Your task to perform on an android device: toggle notification dots Image 0: 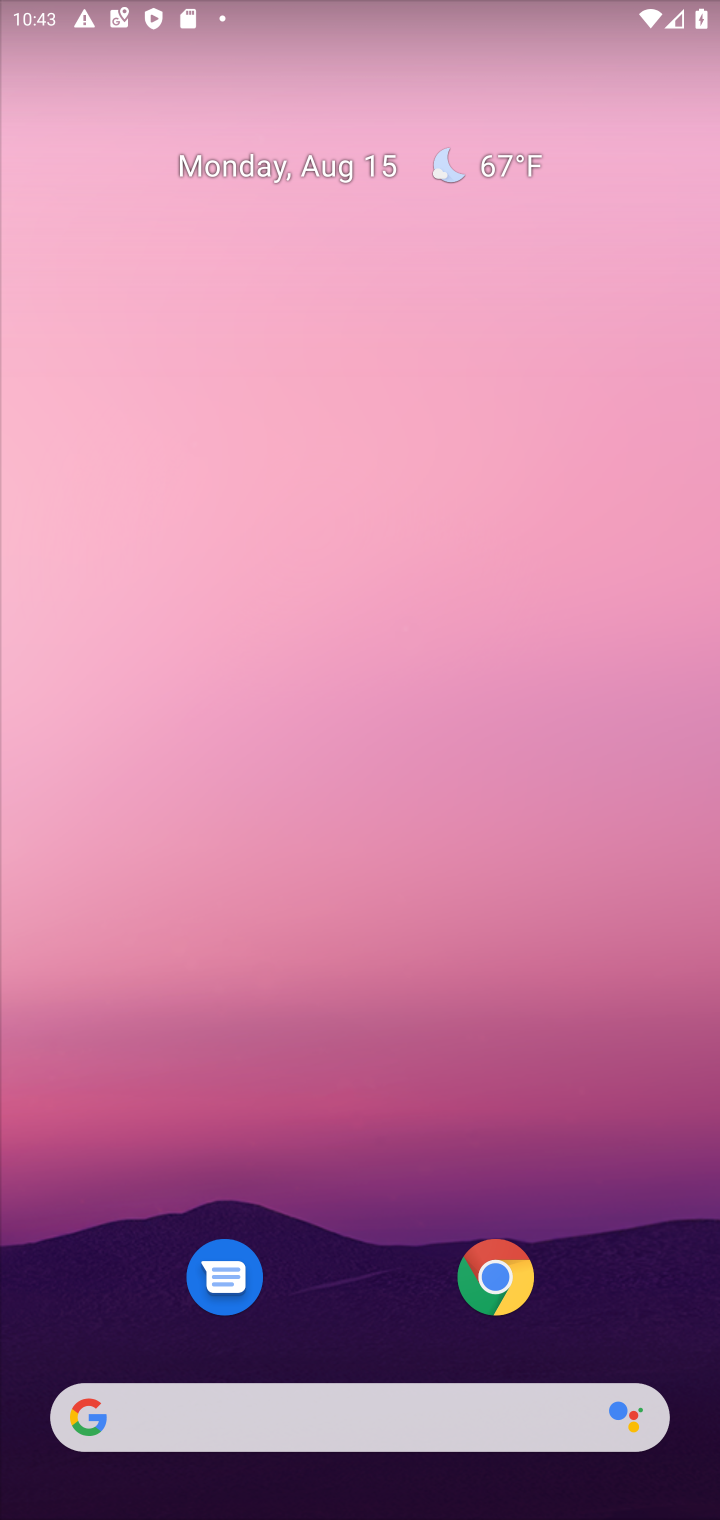
Step 0: drag from (376, 569) to (401, 251)
Your task to perform on an android device: toggle notification dots Image 1: 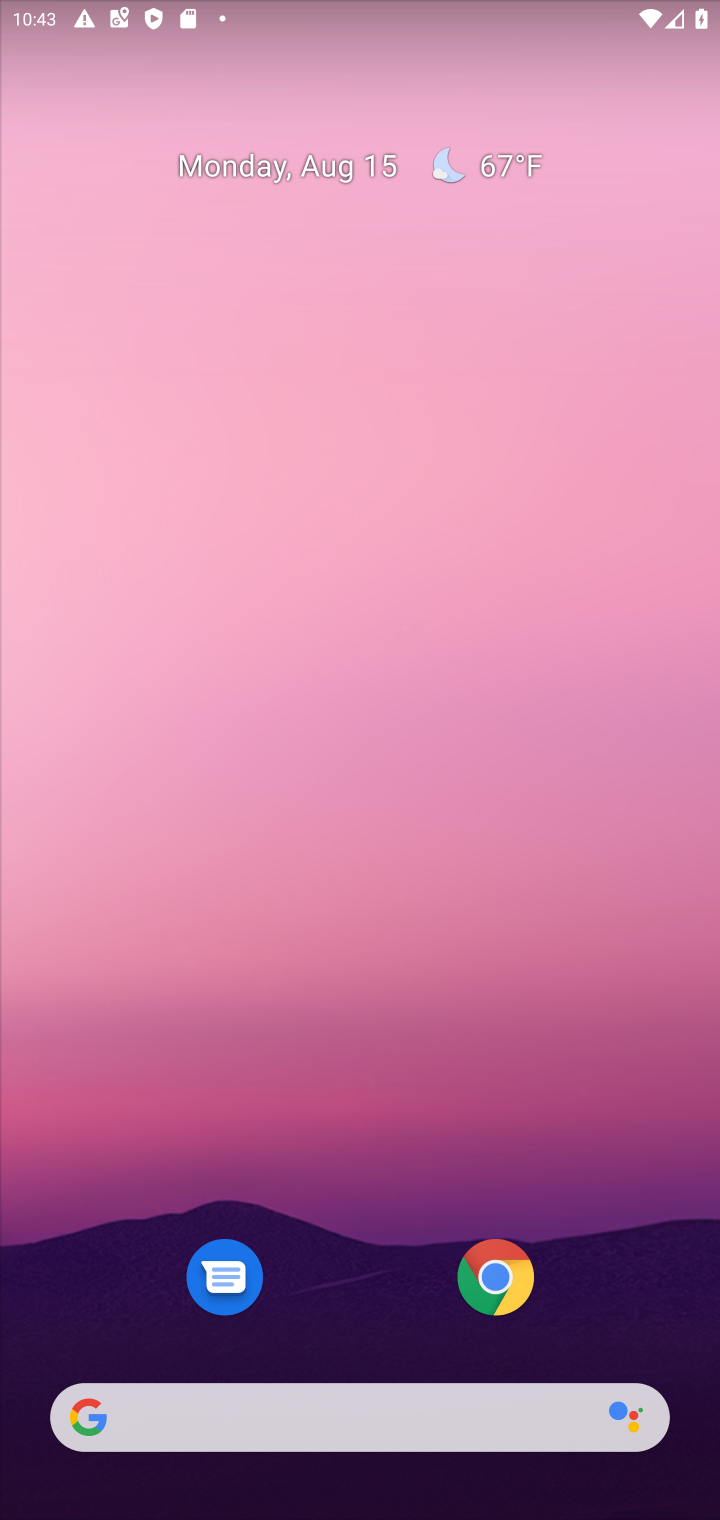
Step 1: click (285, 247)
Your task to perform on an android device: toggle notification dots Image 2: 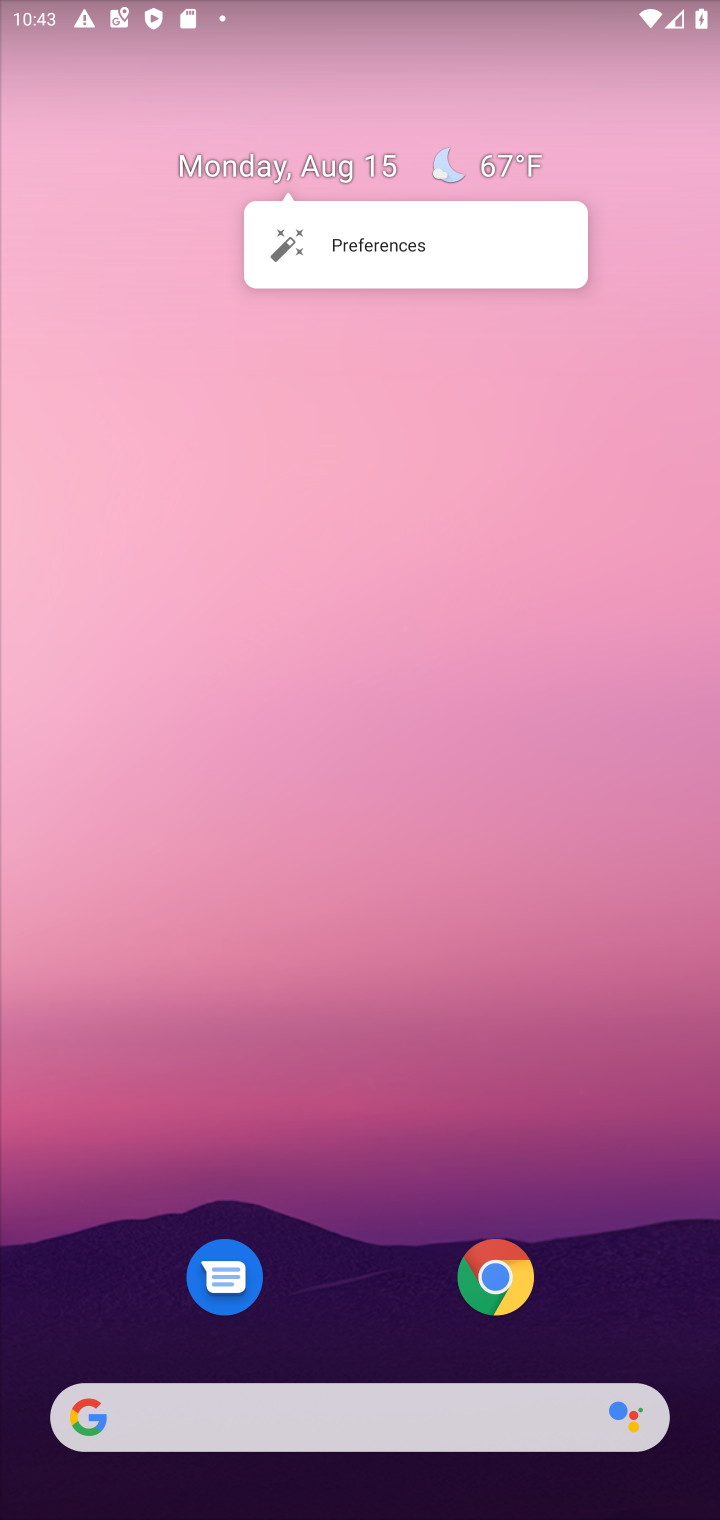
Step 2: drag from (361, 1397) to (377, 653)
Your task to perform on an android device: toggle notification dots Image 3: 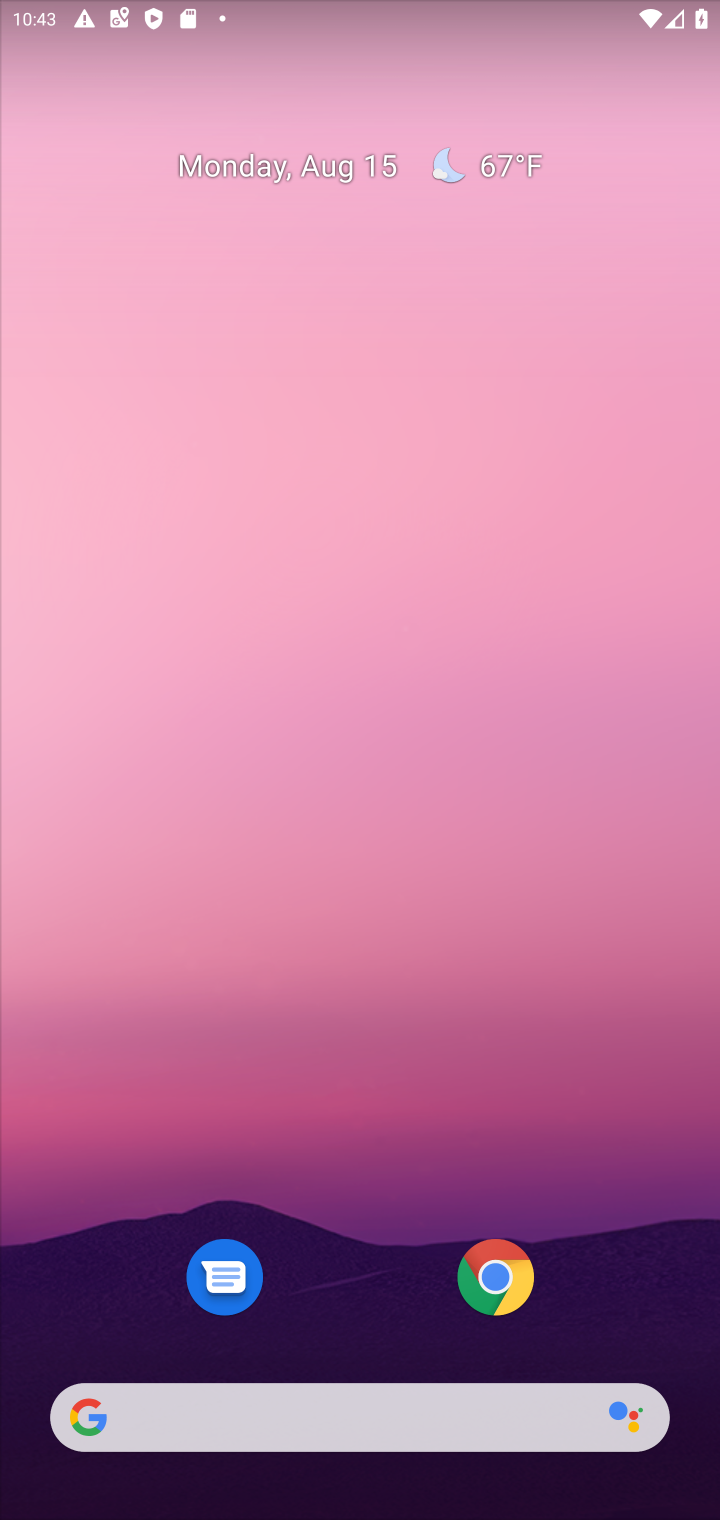
Step 3: drag from (400, 1354) to (449, 549)
Your task to perform on an android device: toggle notification dots Image 4: 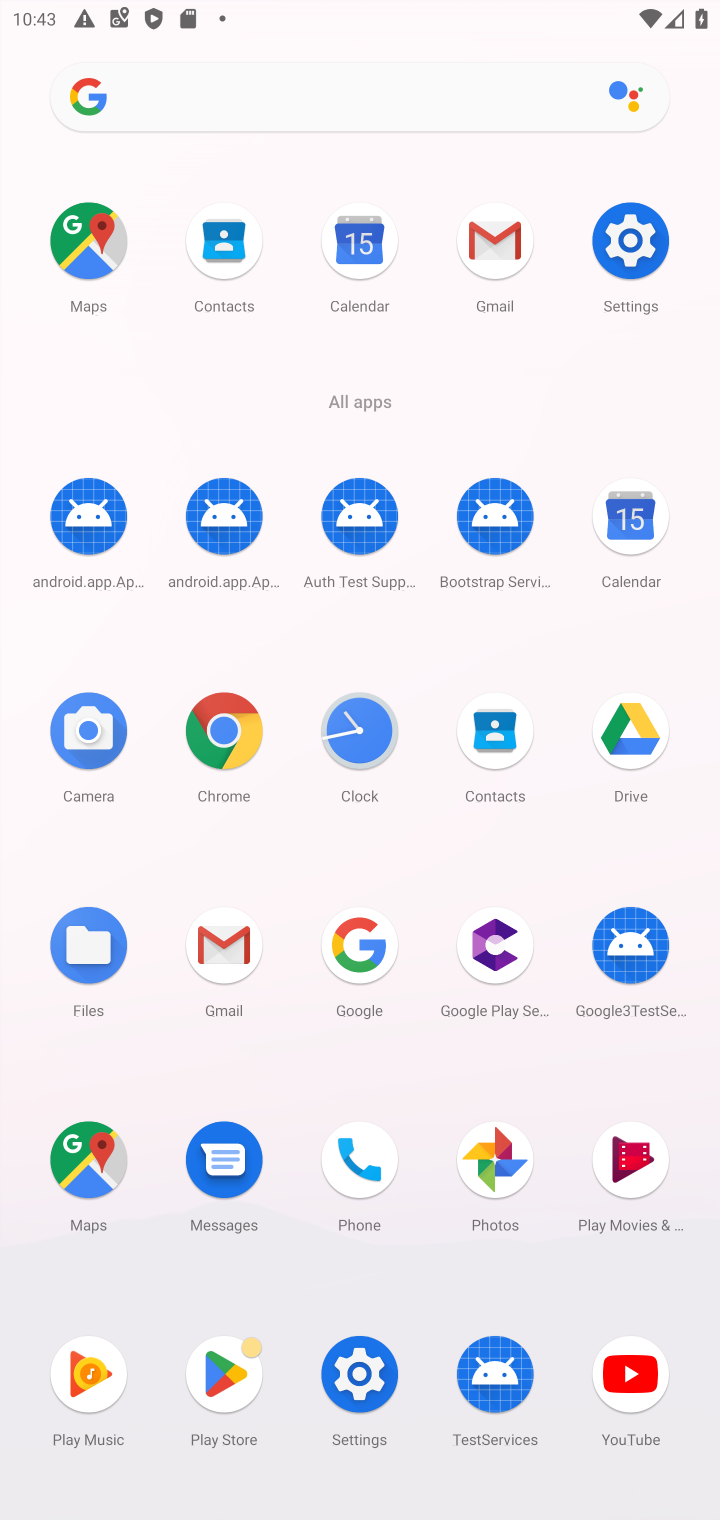
Step 4: click (343, 1368)
Your task to perform on an android device: toggle notification dots Image 5: 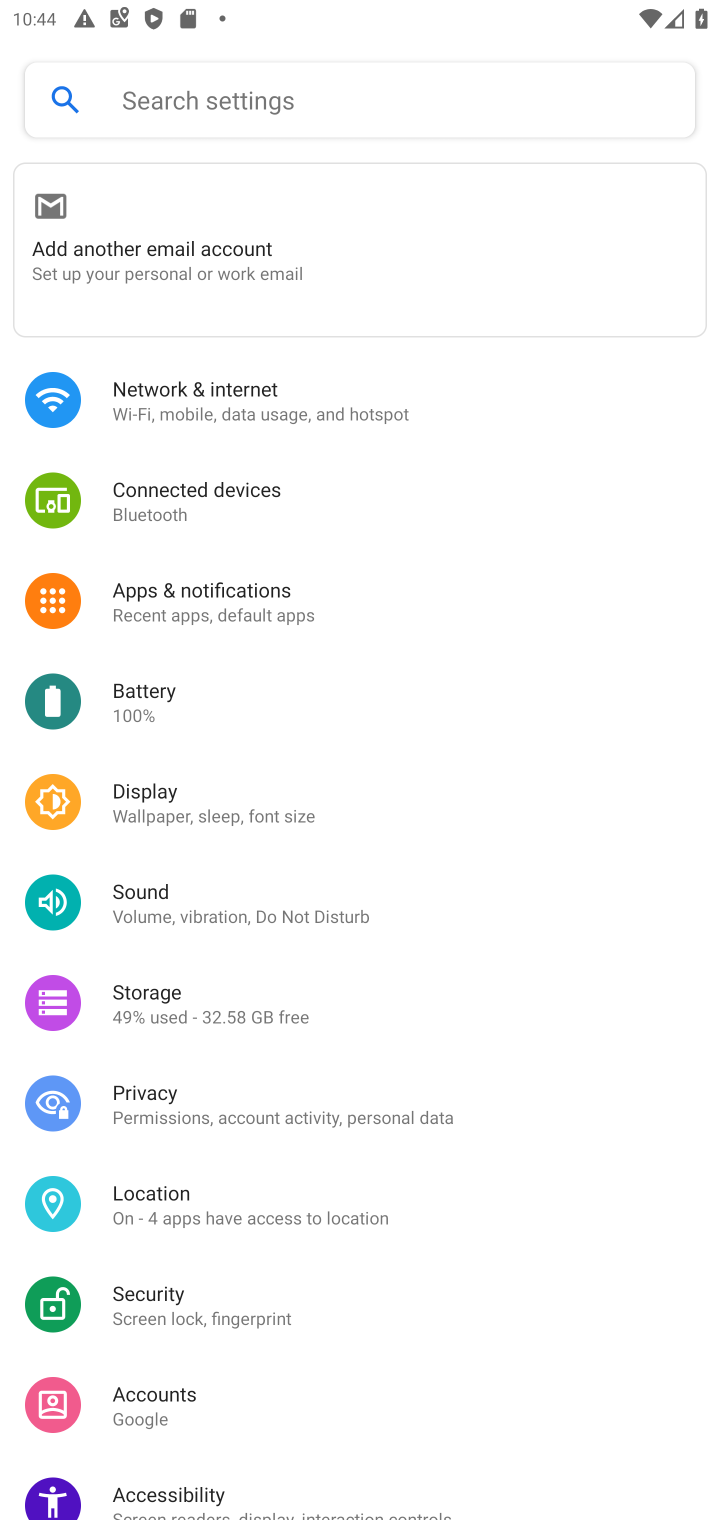
Step 5: click (140, 604)
Your task to perform on an android device: toggle notification dots Image 6: 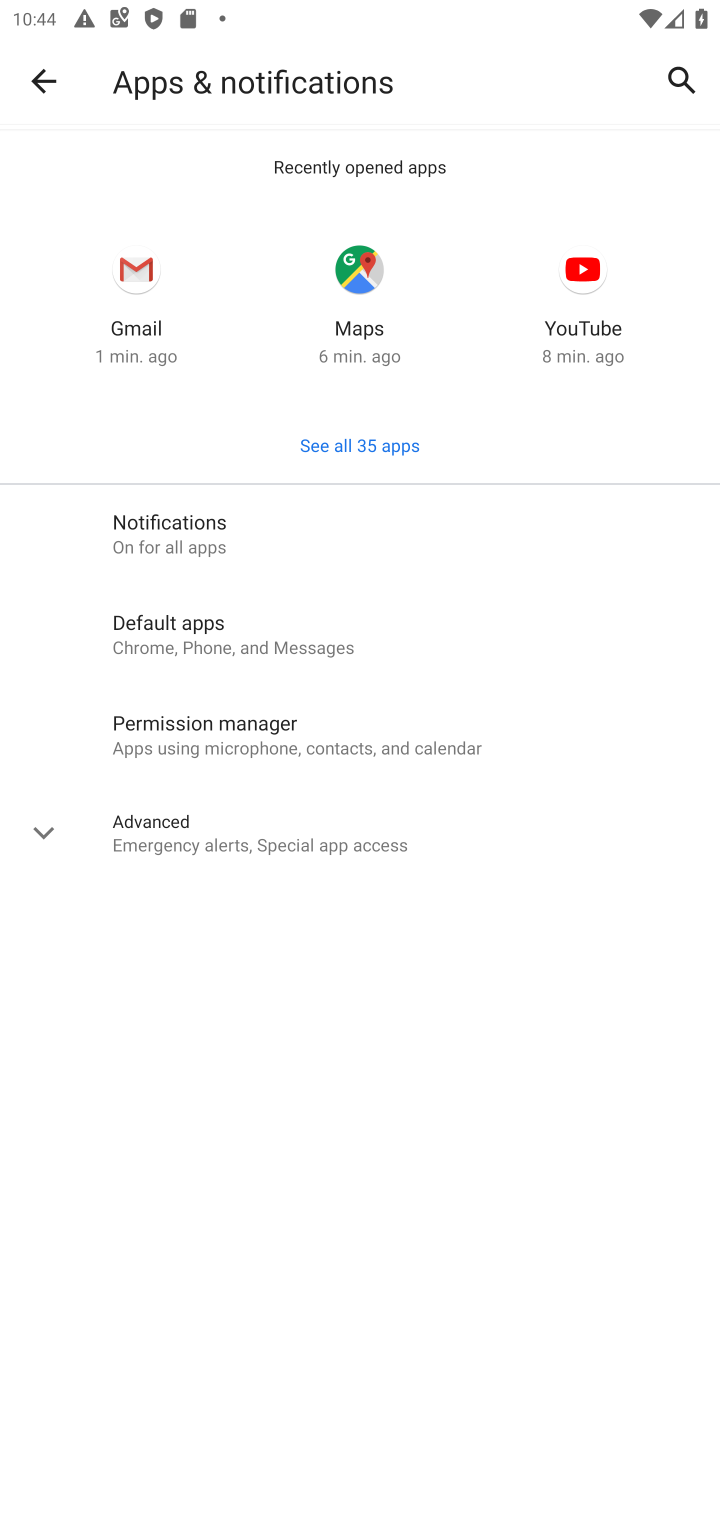
Step 6: click (206, 825)
Your task to perform on an android device: toggle notification dots Image 7: 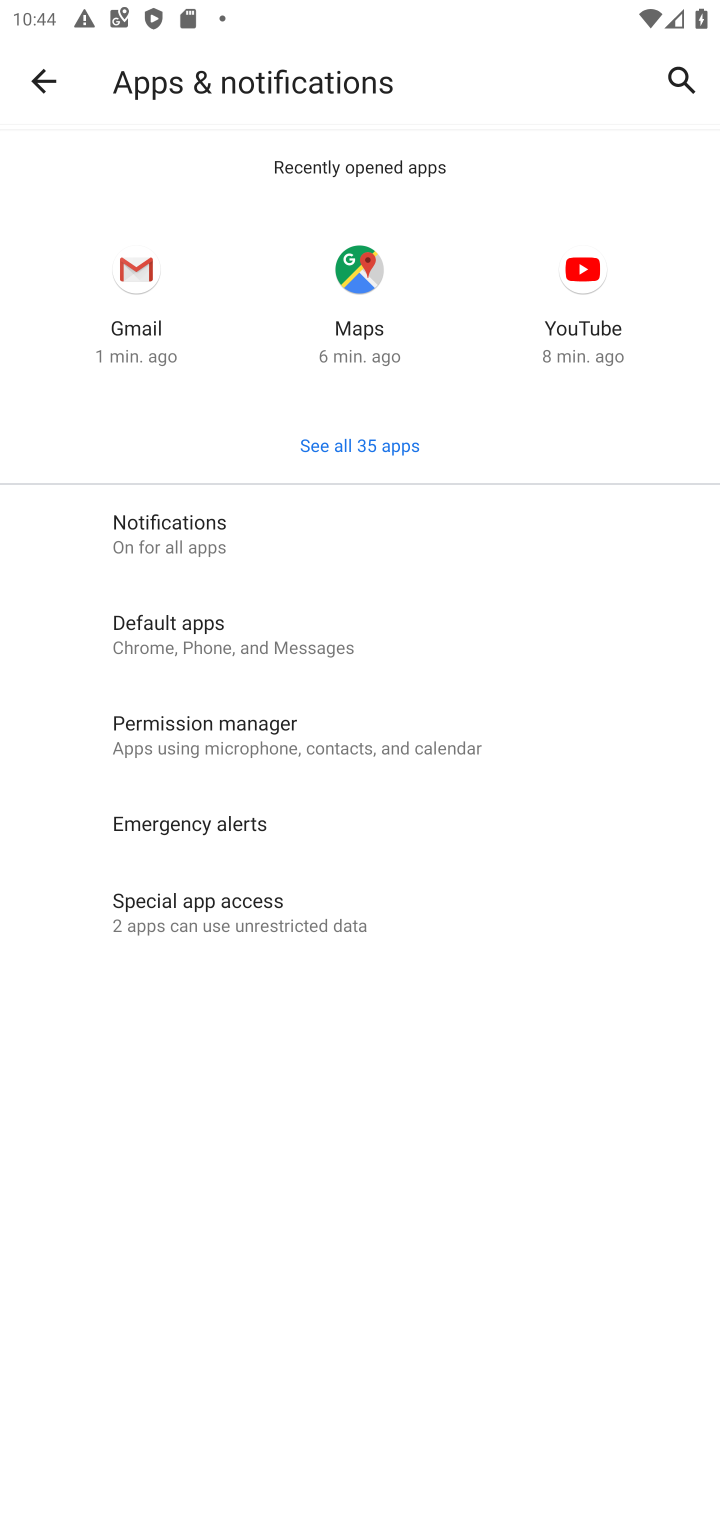
Step 7: click (211, 511)
Your task to perform on an android device: toggle notification dots Image 8: 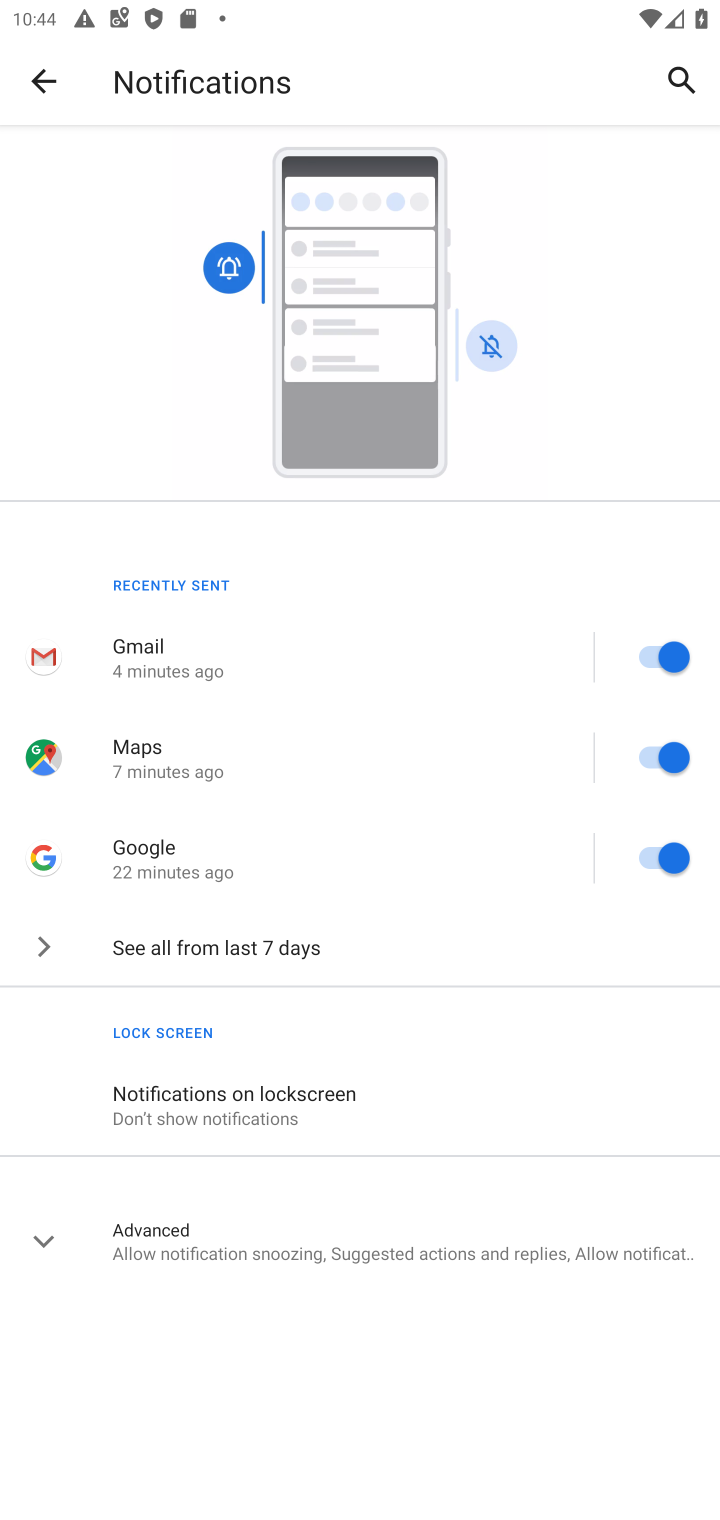
Step 8: click (181, 1247)
Your task to perform on an android device: toggle notification dots Image 9: 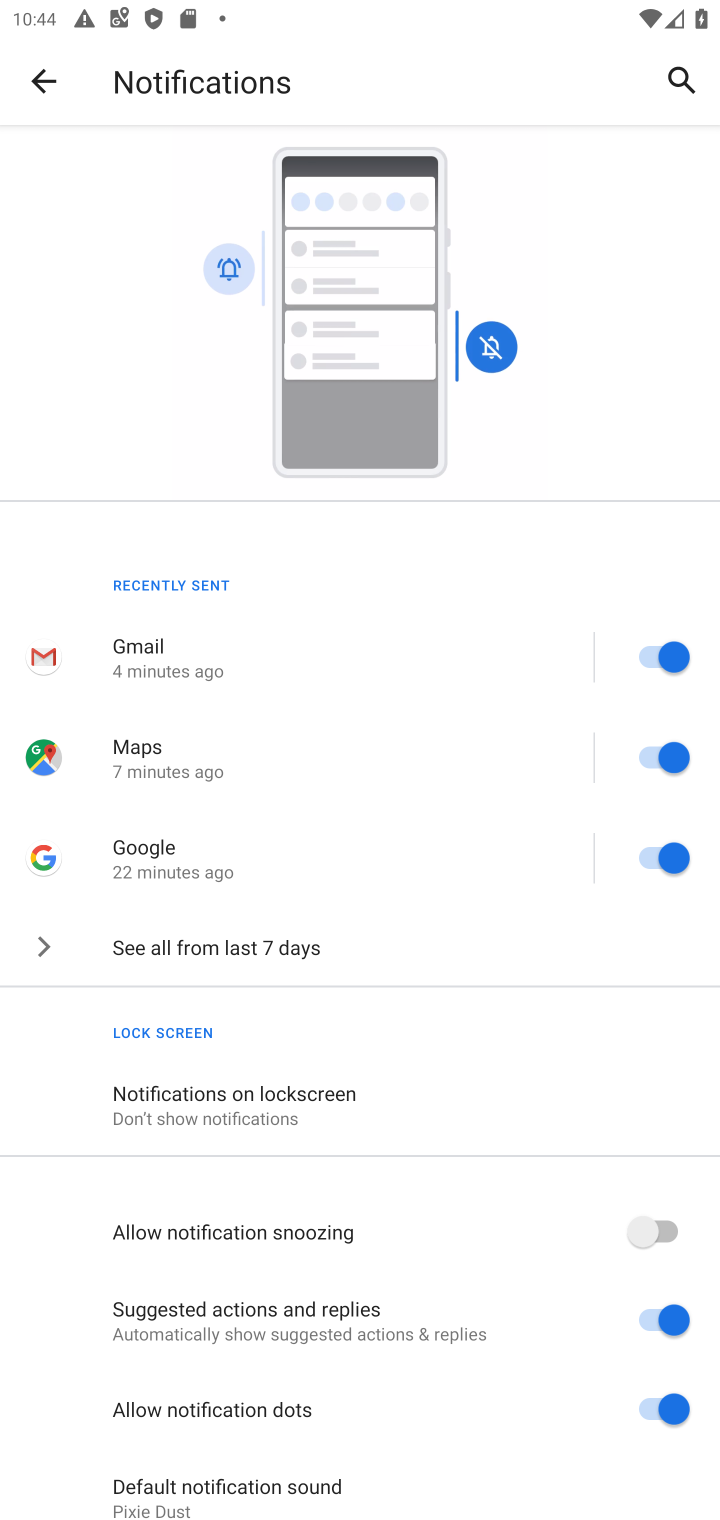
Step 9: drag from (213, 1299) to (224, 868)
Your task to perform on an android device: toggle notification dots Image 10: 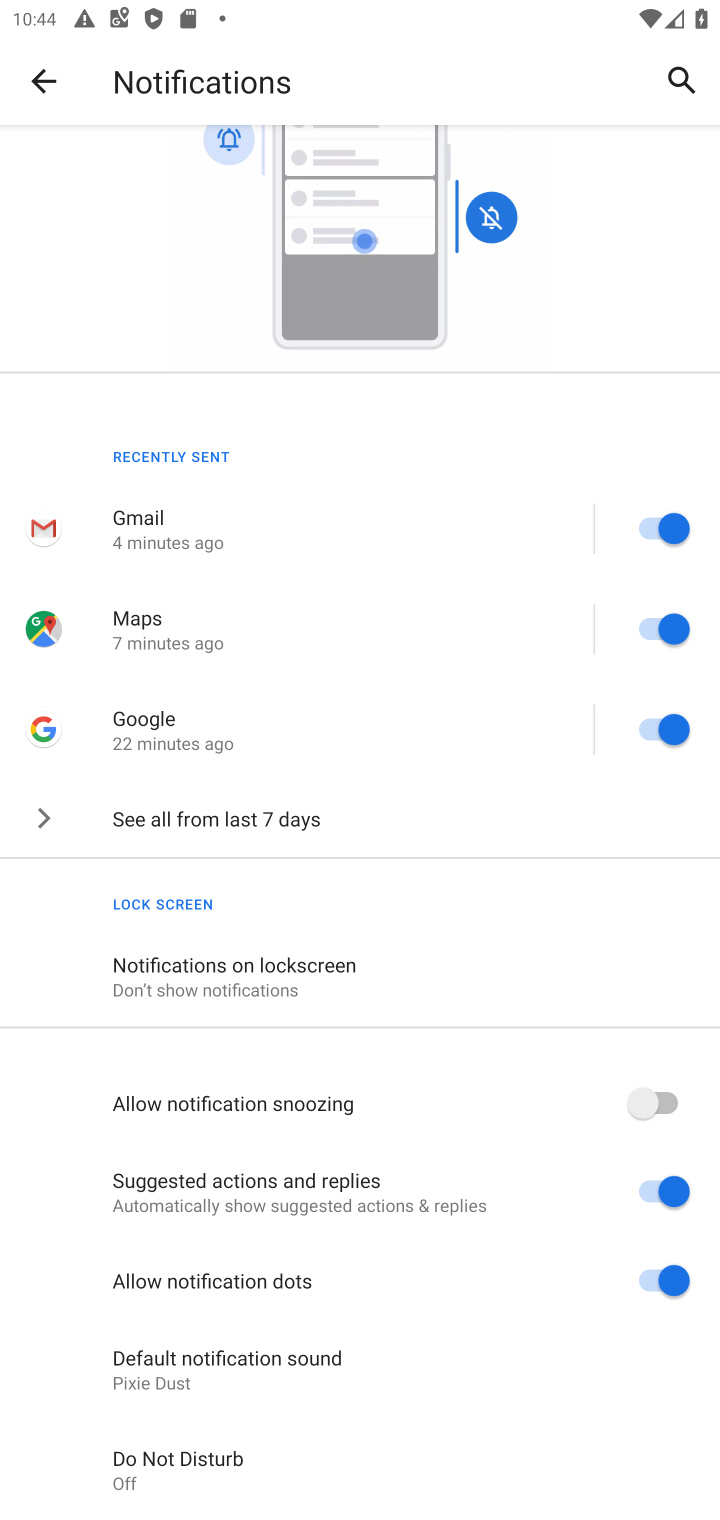
Step 10: click (668, 1279)
Your task to perform on an android device: toggle notification dots Image 11: 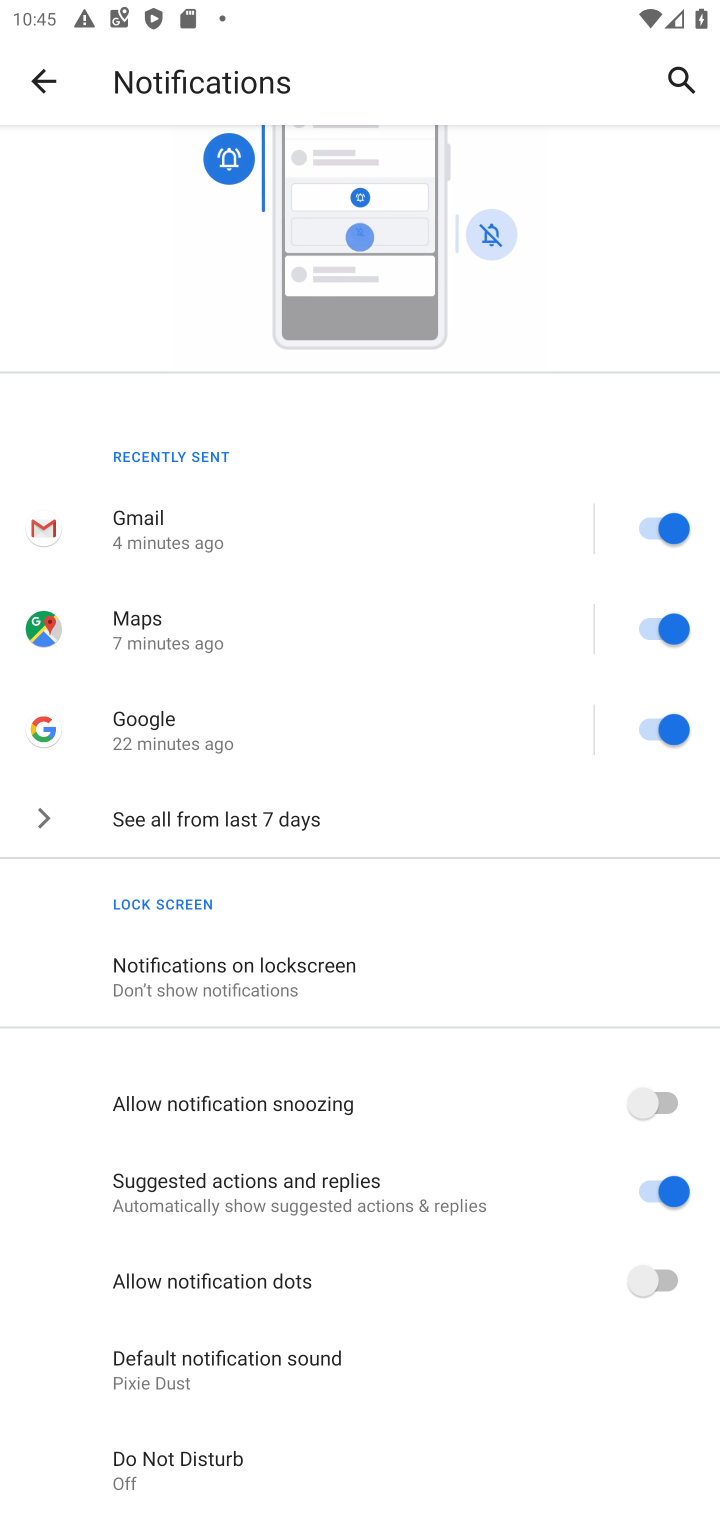
Step 11: task complete